Your task to perform on an android device: add a contact Image 0: 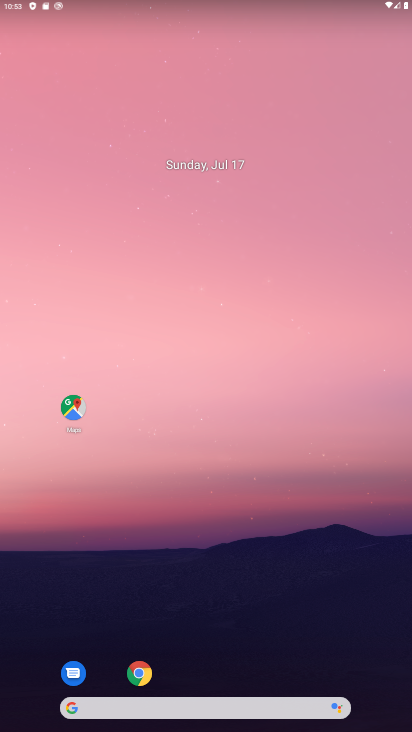
Step 0: drag from (262, 588) to (173, 102)
Your task to perform on an android device: add a contact Image 1: 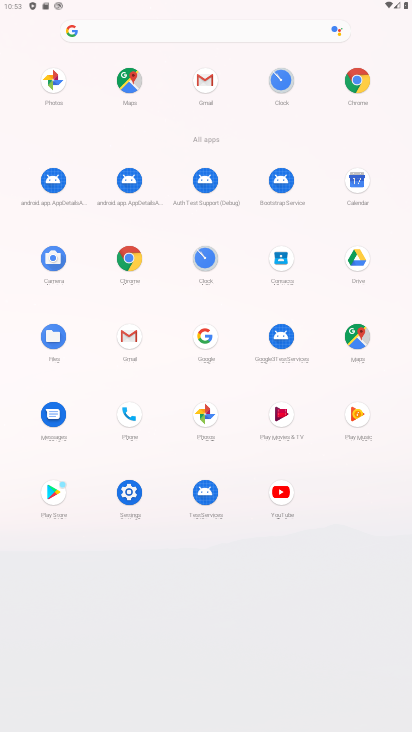
Step 1: click (280, 263)
Your task to perform on an android device: add a contact Image 2: 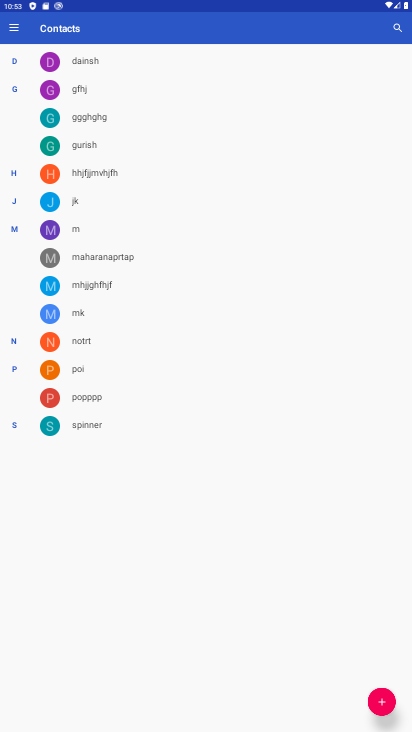
Step 2: click (386, 704)
Your task to perform on an android device: add a contact Image 3: 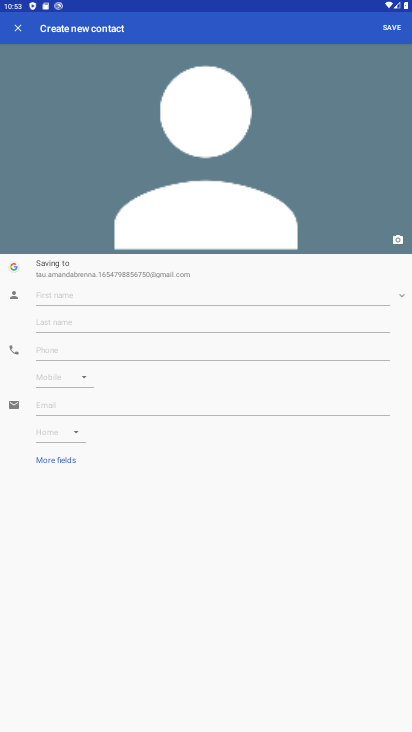
Step 3: click (133, 296)
Your task to perform on an android device: add a contact Image 4: 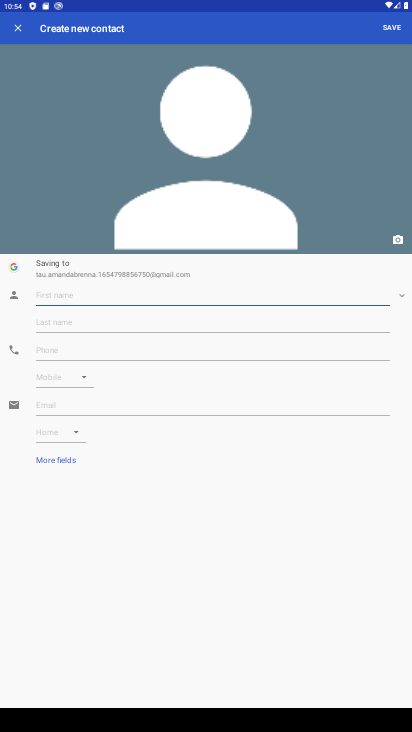
Step 4: type "sdfghjkjhgfd"
Your task to perform on an android device: add a contact Image 5: 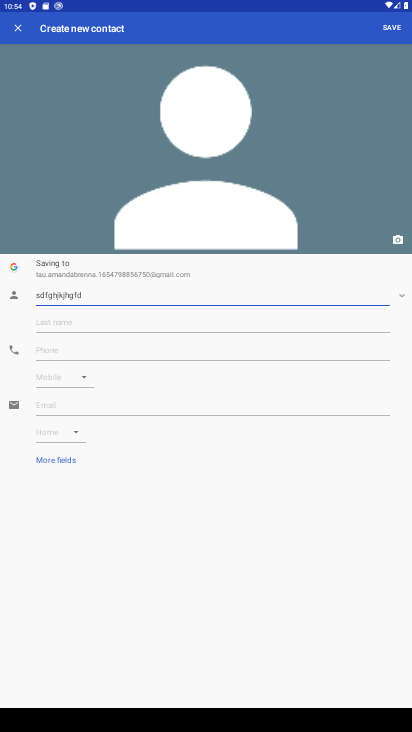
Step 5: click (45, 345)
Your task to perform on an android device: add a contact Image 6: 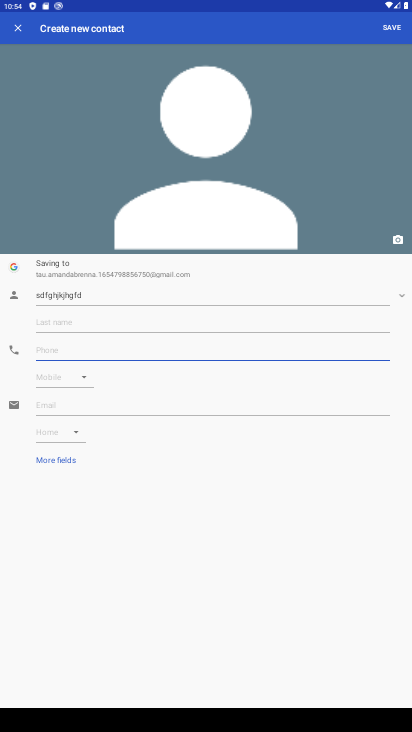
Step 6: type "345678765456"
Your task to perform on an android device: add a contact Image 7: 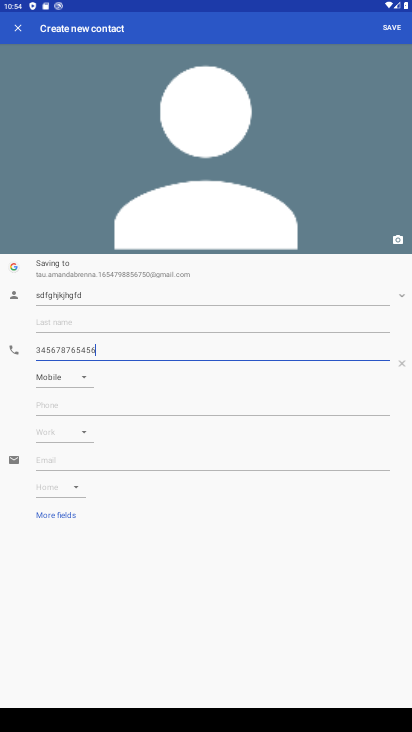
Step 7: click (395, 29)
Your task to perform on an android device: add a contact Image 8: 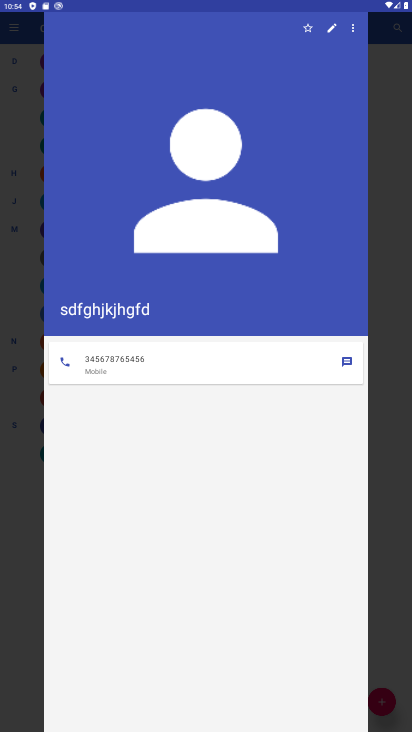
Step 8: task complete